Your task to perform on an android device: Go to Google Image 0: 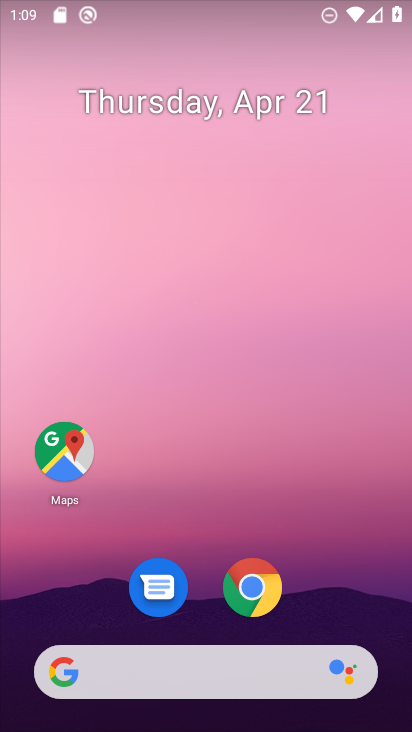
Step 0: click (199, 2)
Your task to perform on an android device: Go to Google Image 1: 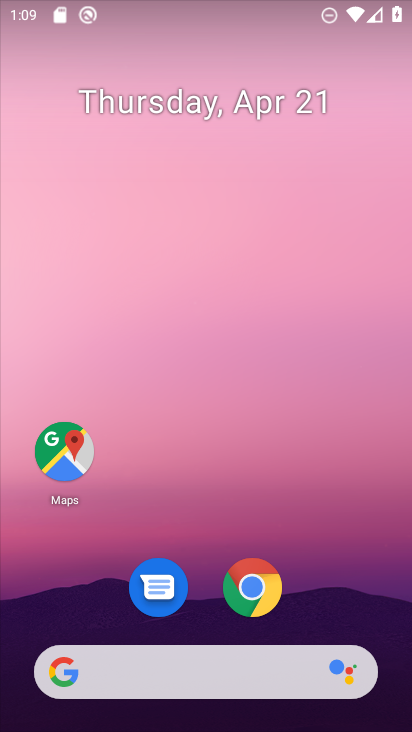
Step 1: click (193, 662)
Your task to perform on an android device: Go to Google Image 2: 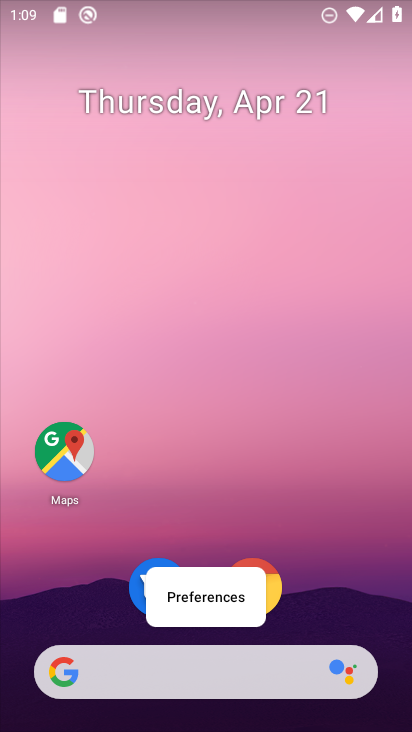
Step 2: click (193, 662)
Your task to perform on an android device: Go to Google Image 3: 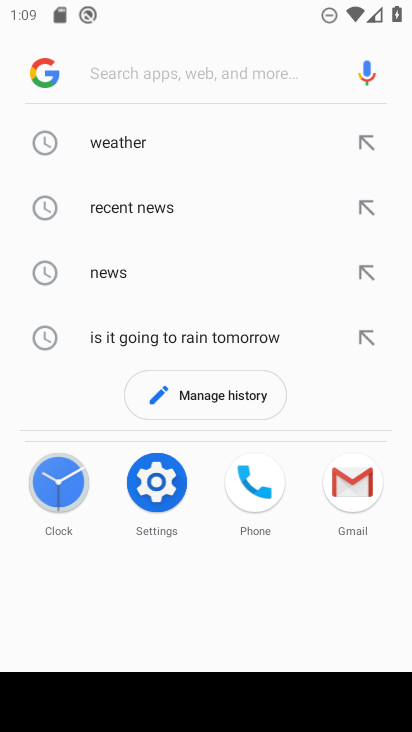
Step 3: click (46, 77)
Your task to perform on an android device: Go to Google Image 4: 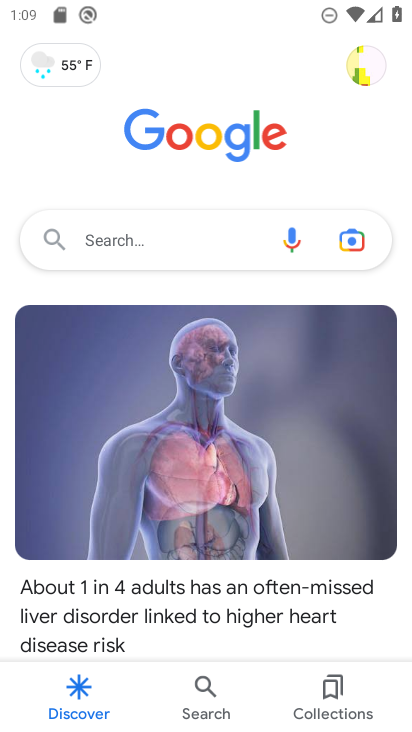
Step 4: task complete